Your task to perform on an android device: Open Android settings Image 0: 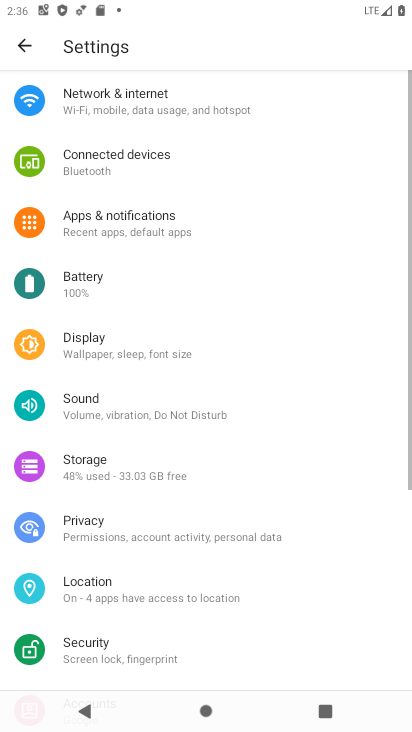
Step 0: drag from (202, 228) to (179, 513)
Your task to perform on an android device: Open Android settings Image 1: 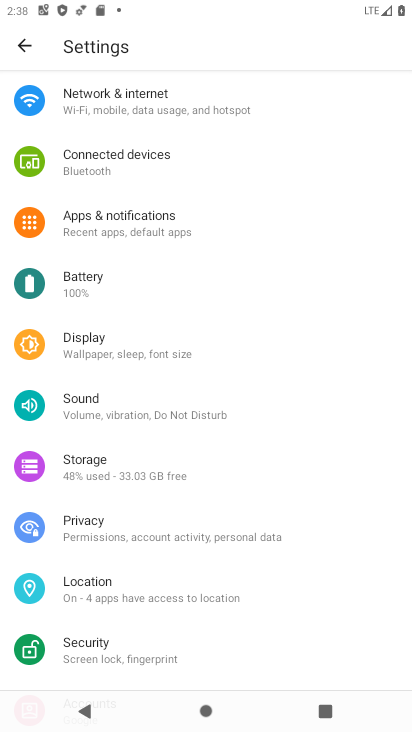
Step 1: task complete